Your task to perform on an android device: Show me the best rated coffee table on Ikea Image 0: 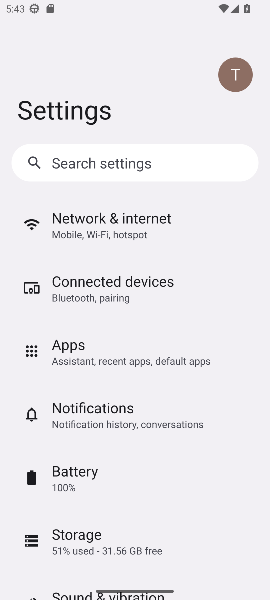
Step 0: press home button
Your task to perform on an android device: Show me the best rated coffee table on Ikea Image 1: 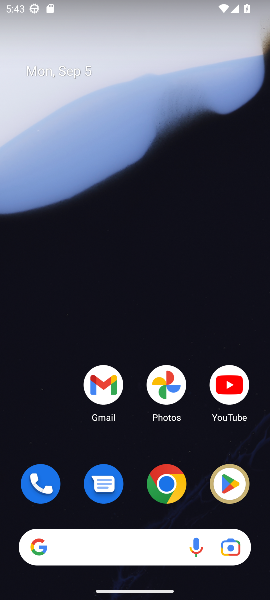
Step 1: click (163, 484)
Your task to perform on an android device: Show me the best rated coffee table on Ikea Image 2: 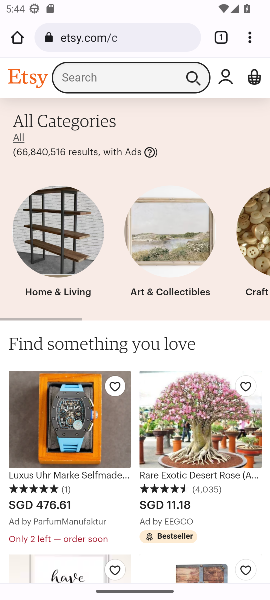
Step 2: click (136, 34)
Your task to perform on an android device: Show me the best rated coffee table on Ikea Image 3: 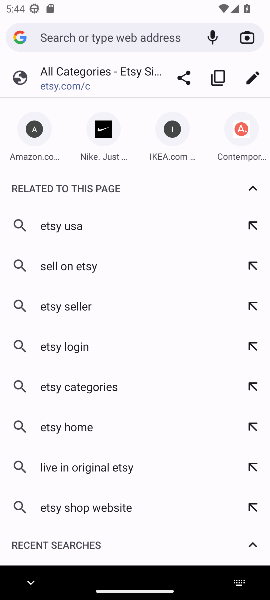
Step 3: type " Ikea"
Your task to perform on an android device: Show me the best rated coffee table on Ikea Image 4: 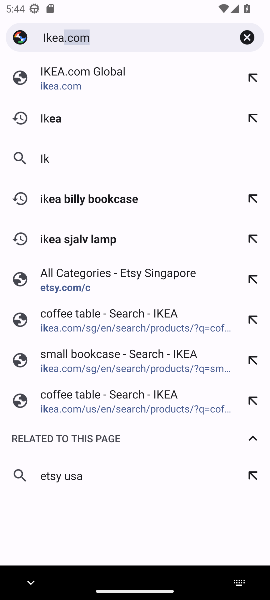
Step 4: press enter
Your task to perform on an android device: Show me the best rated coffee table on Ikea Image 5: 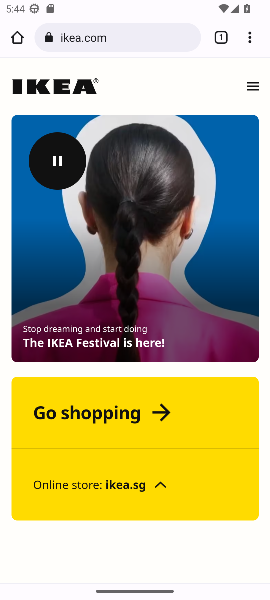
Step 5: click (120, 407)
Your task to perform on an android device: Show me the best rated coffee table on Ikea Image 6: 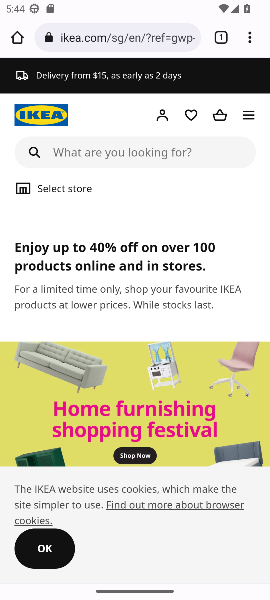
Step 6: click (107, 154)
Your task to perform on an android device: Show me the best rated coffee table on Ikea Image 7: 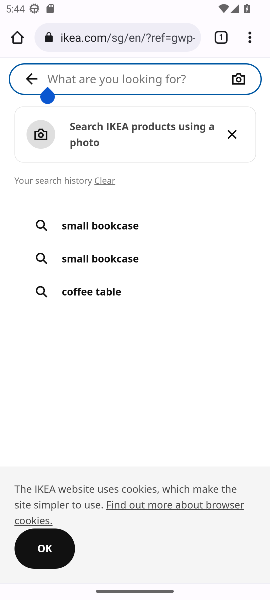
Step 7: type " coffee table"
Your task to perform on an android device: Show me the best rated coffee table on Ikea Image 8: 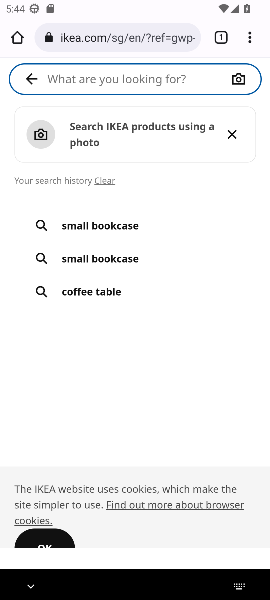
Step 8: press enter
Your task to perform on an android device: Show me the best rated coffee table on Ikea Image 9: 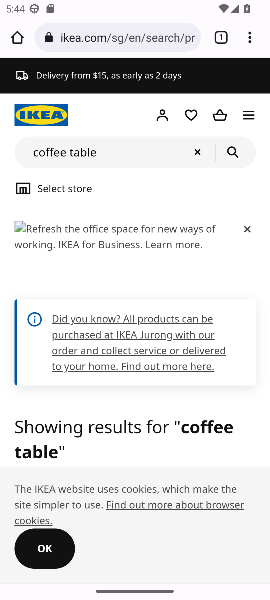
Step 9: task complete